Your task to perform on an android device: Go to privacy settings Image 0: 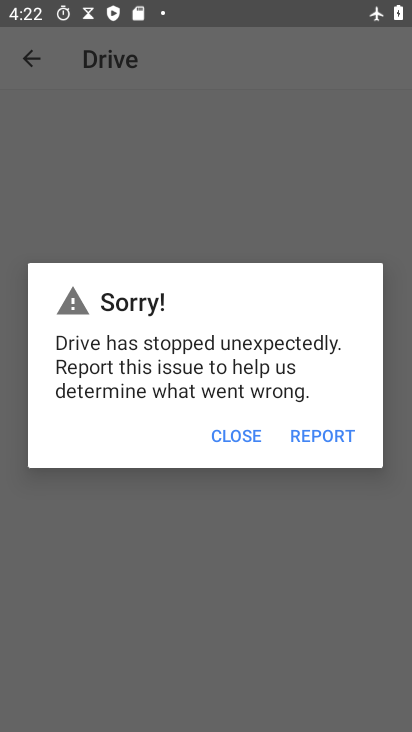
Step 0: press home button
Your task to perform on an android device: Go to privacy settings Image 1: 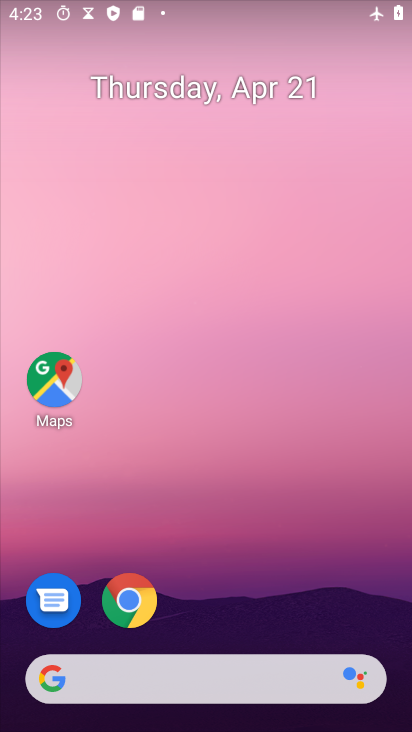
Step 1: drag from (221, 634) to (240, 71)
Your task to perform on an android device: Go to privacy settings Image 2: 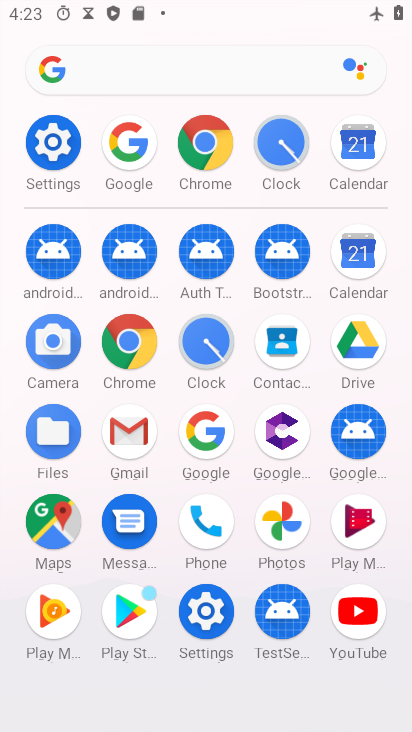
Step 2: click (56, 143)
Your task to perform on an android device: Go to privacy settings Image 3: 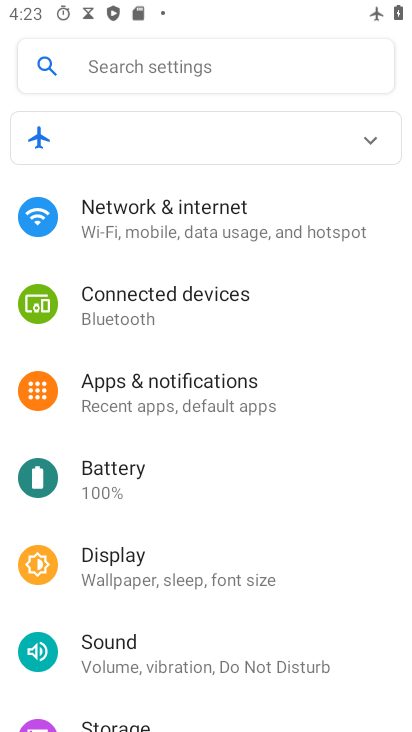
Step 3: drag from (183, 489) to (197, 341)
Your task to perform on an android device: Go to privacy settings Image 4: 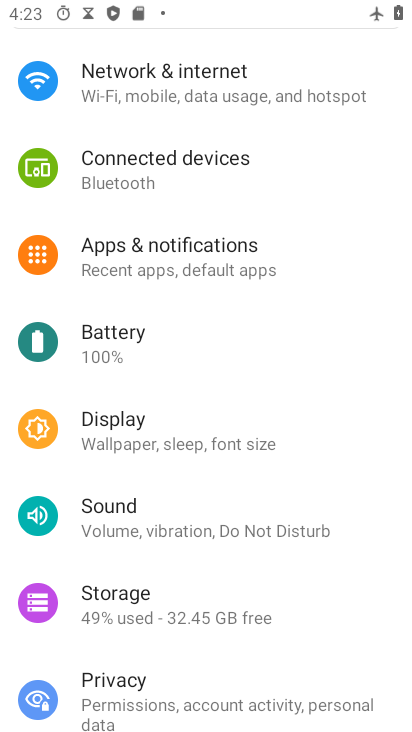
Step 4: drag from (199, 505) to (258, 344)
Your task to perform on an android device: Go to privacy settings Image 5: 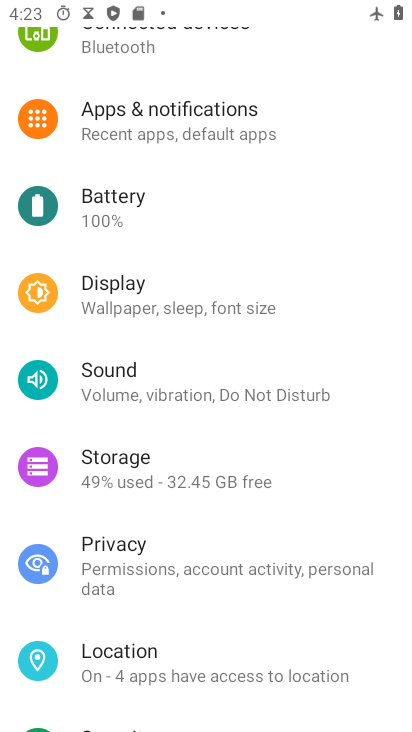
Step 5: click (199, 566)
Your task to perform on an android device: Go to privacy settings Image 6: 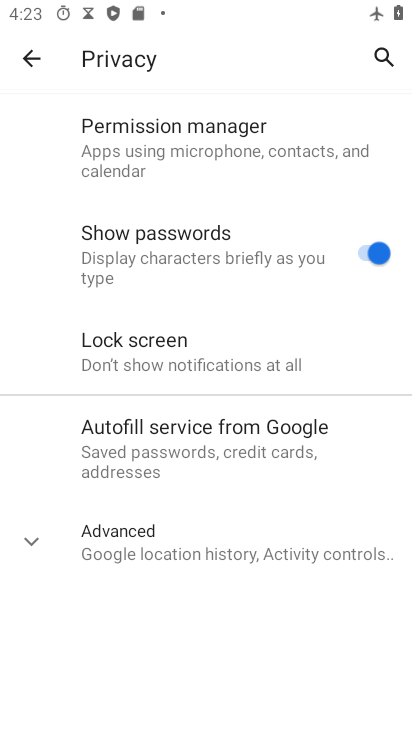
Step 6: task complete